Your task to perform on an android device: create a new album in the google photos Image 0: 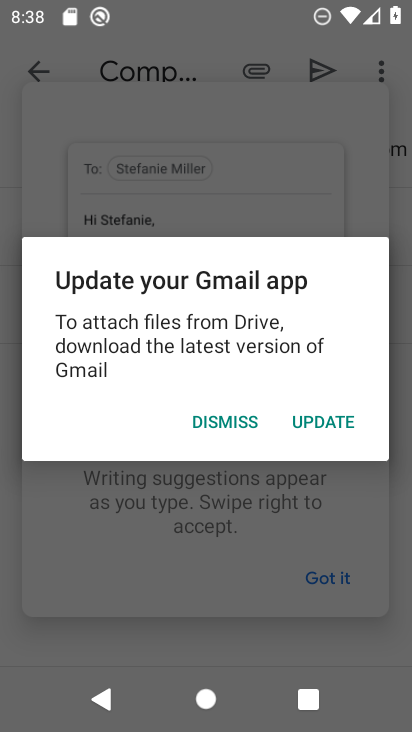
Step 0: press home button
Your task to perform on an android device: create a new album in the google photos Image 1: 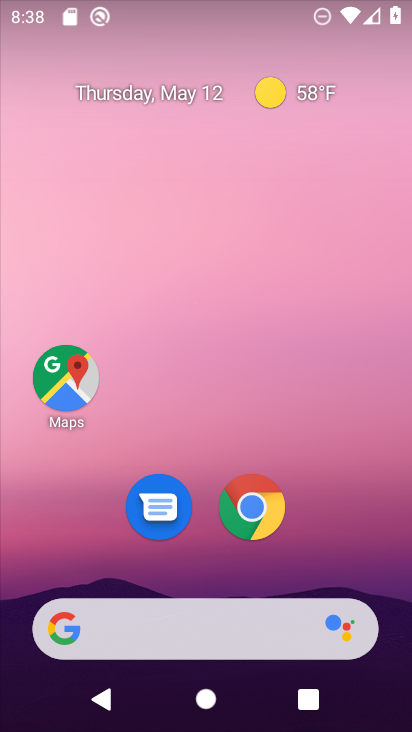
Step 1: drag from (217, 568) to (218, 224)
Your task to perform on an android device: create a new album in the google photos Image 2: 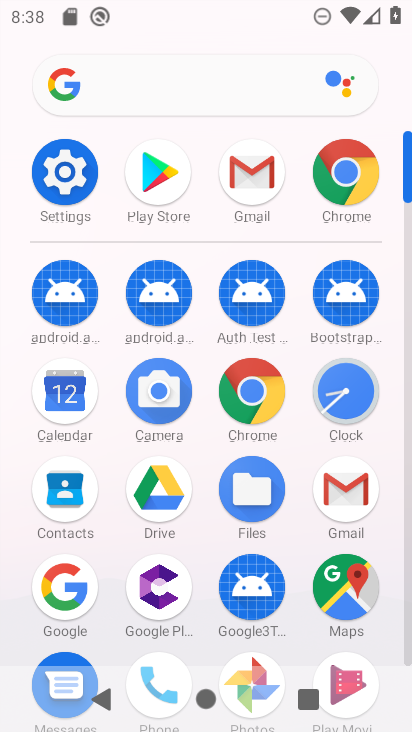
Step 2: click (245, 656)
Your task to perform on an android device: create a new album in the google photos Image 3: 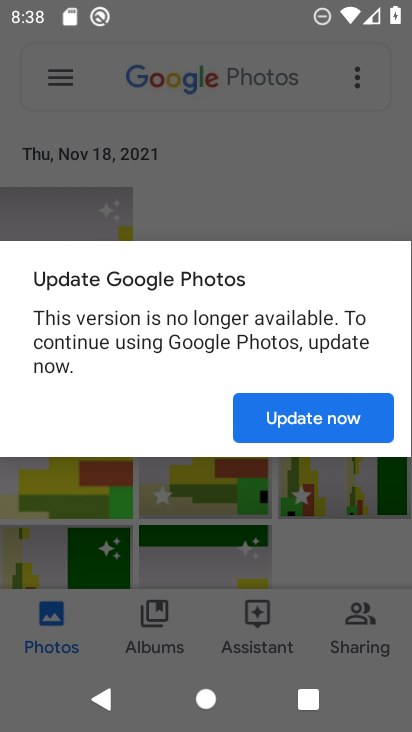
Step 3: click (320, 416)
Your task to perform on an android device: create a new album in the google photos Image 4: 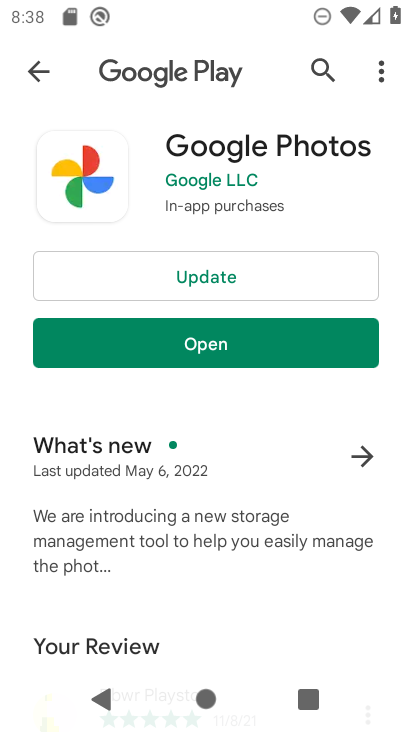
Step 4: click (237, 344)
Your task to perform on an android device: create a new album in the google photos Image 5: 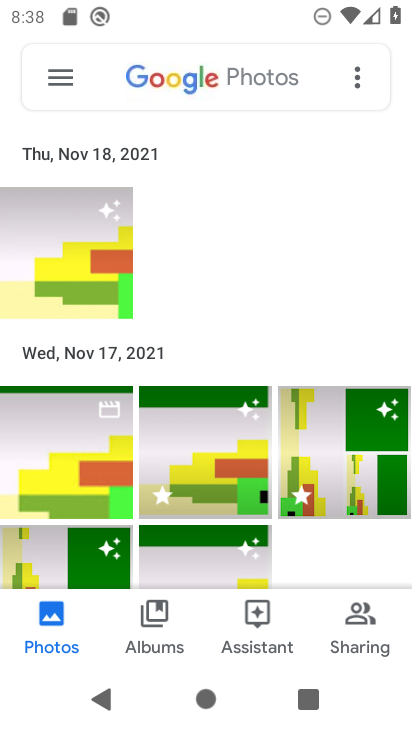
Step 5: click (353, 80)
Your task to perform on an android device: create a new album in the google photos Image 6: 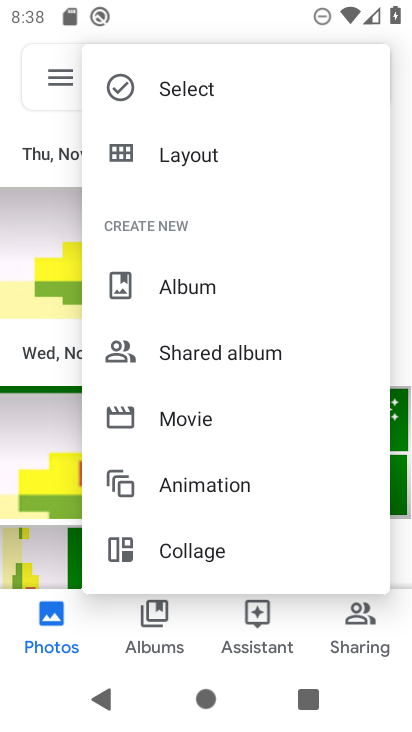
Step 6: click (176, 272)
Your task to perform on an android device: create a new album in the google photos Image 7: 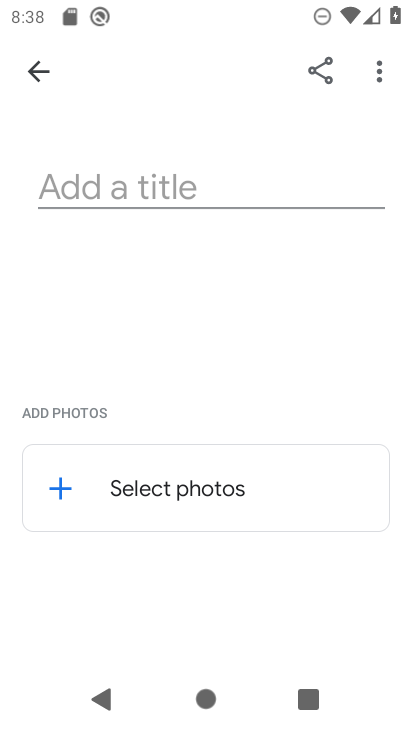
Step 7: click (170, 192)
Your task to perform on an android device: create a new album in the google photos Image 8: 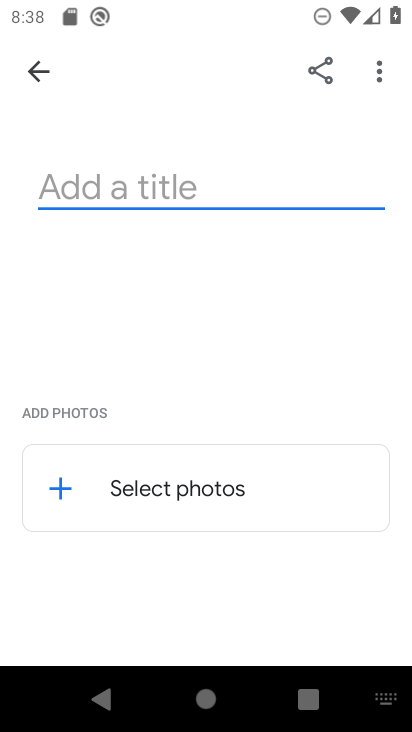
Step 8: type "xbf"
Your task to perform on an android device: create a new album in the google photos Image 9: 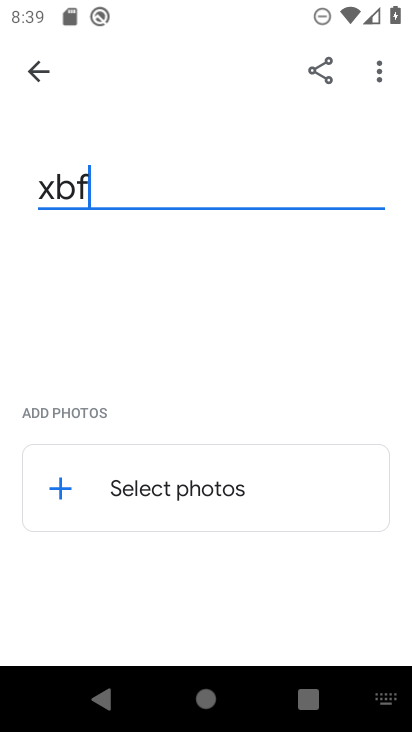
Step 9: click (97, 499)
Your task to perform on an android device: create a new album in the google photos Image 10: 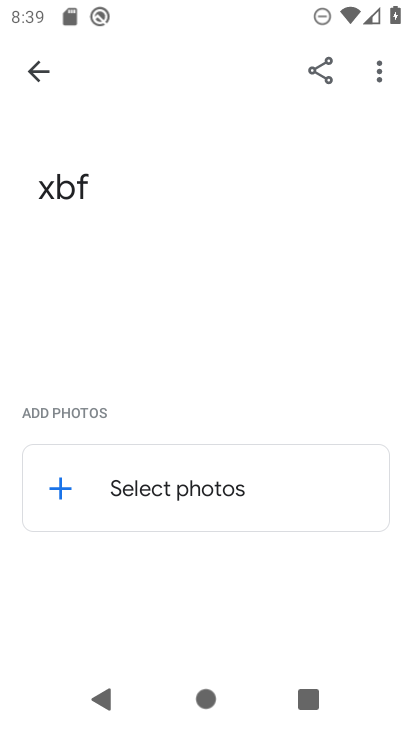
Step 10: click (64, 491)
Your task to perform on an android device: create a new album in the google photos Image 11: 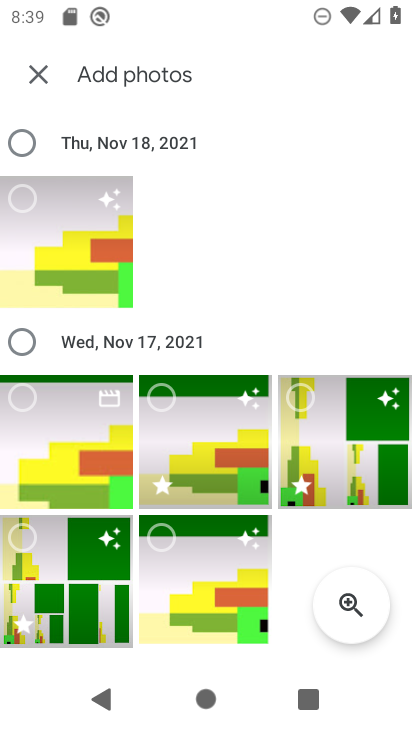
Step 11: click (72, 489)
Your task to perform on an android device: create a new album in the google photos Image 12: 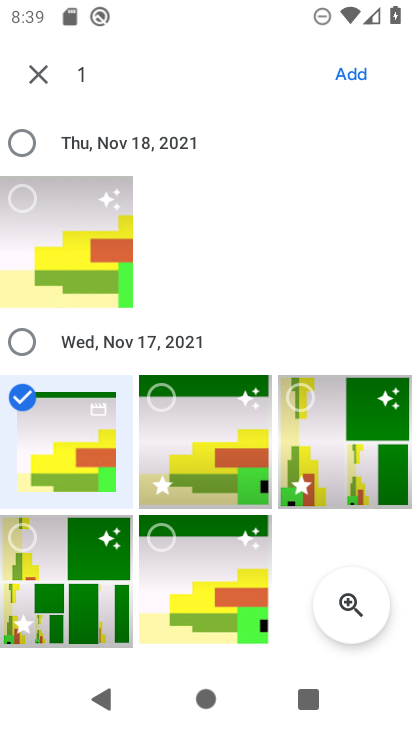
Step 12: task complete